Your task to perform on an android device: open a bookmark in the chrome app Image 0: 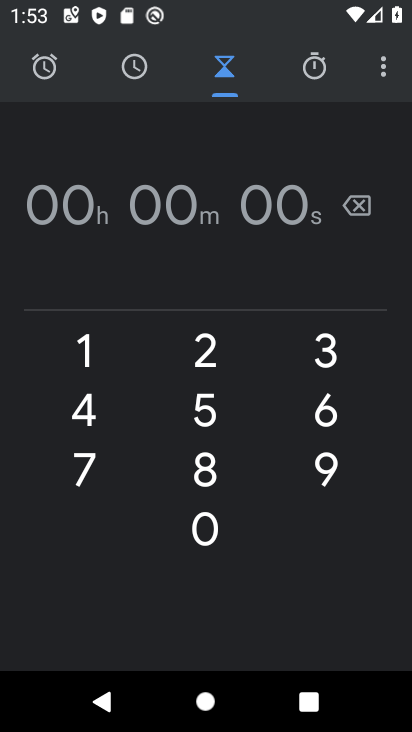
Step 0: press home button
Your task to perform on an android device: open a bookmark in the chrome app Image 1: 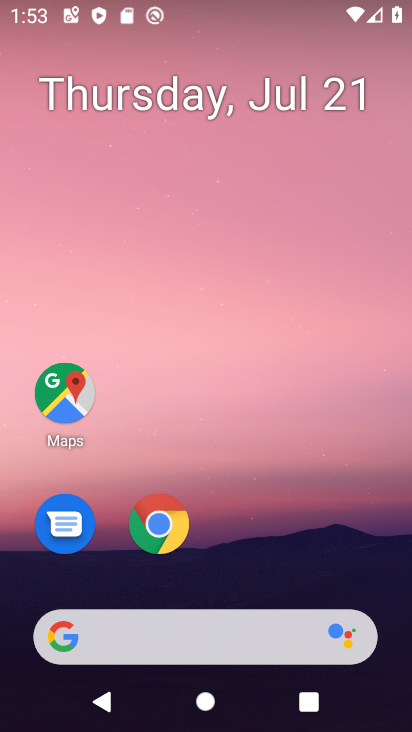
Step 1: click (174, 529)
Your task to perform on an android device: open a bookmark in the chrome app Image 2: 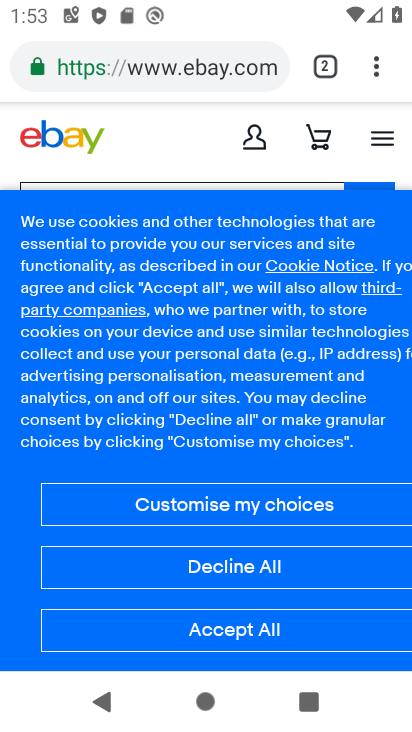
Step 2: click (379, 63)
Your task to perform on an android device: open a bookmark in the chrome app Image 3: 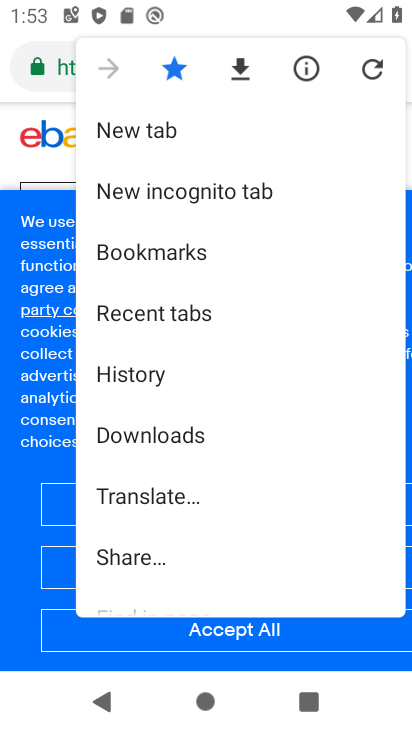
Step 3: click (189, 247)
Your task to perform on an android device: open a bookmark in the chrome app Image 4: 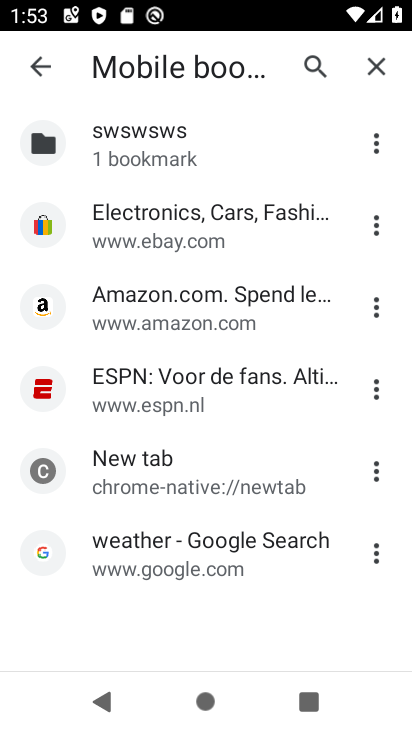
Step 4: click (181, 303)
Your task to perform on an android device: open a bookmark in the chrome app Image 5: 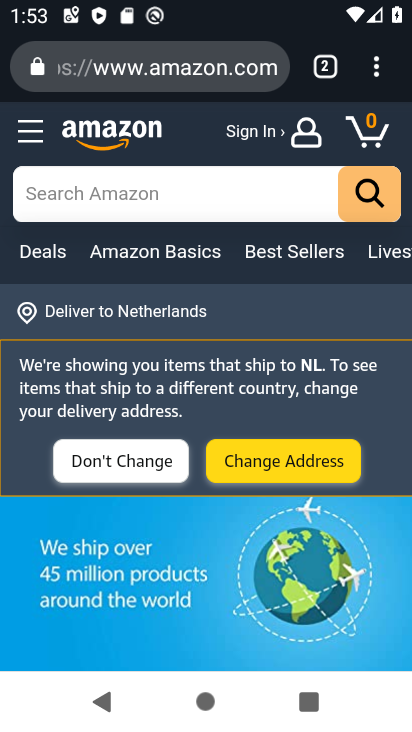
Step 5: task complete